Your task to perform on an android device: Open internet settings Image 0: 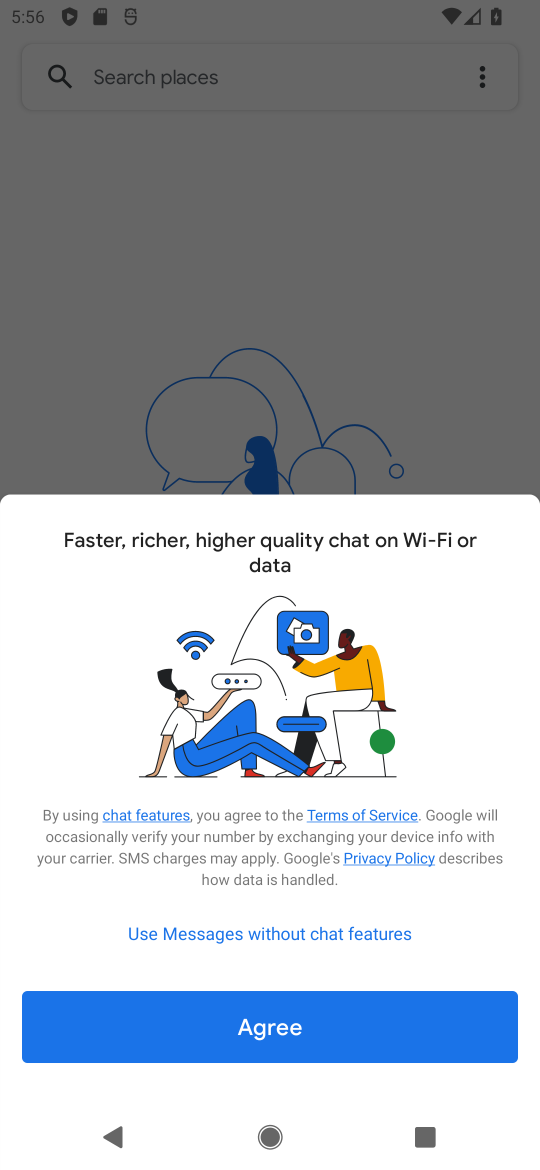
Step 0: press home button
Your task to perform on an android device: Open internet settings Image 1: 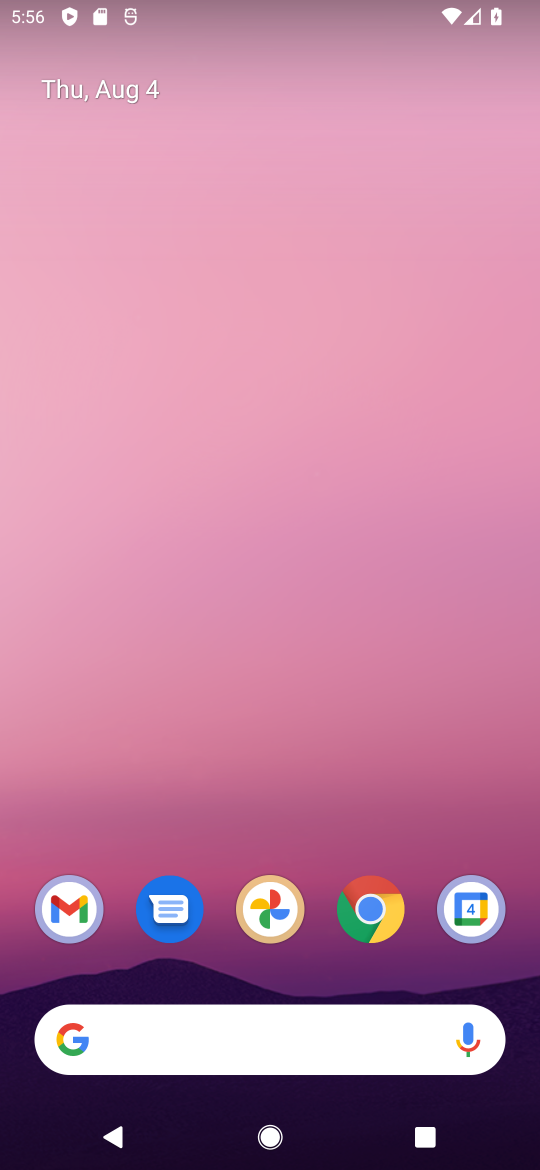
Step 1: drag from (325, 1012) to (451, 108)
Your task to perform on an android device: Open internet settings Image 2: 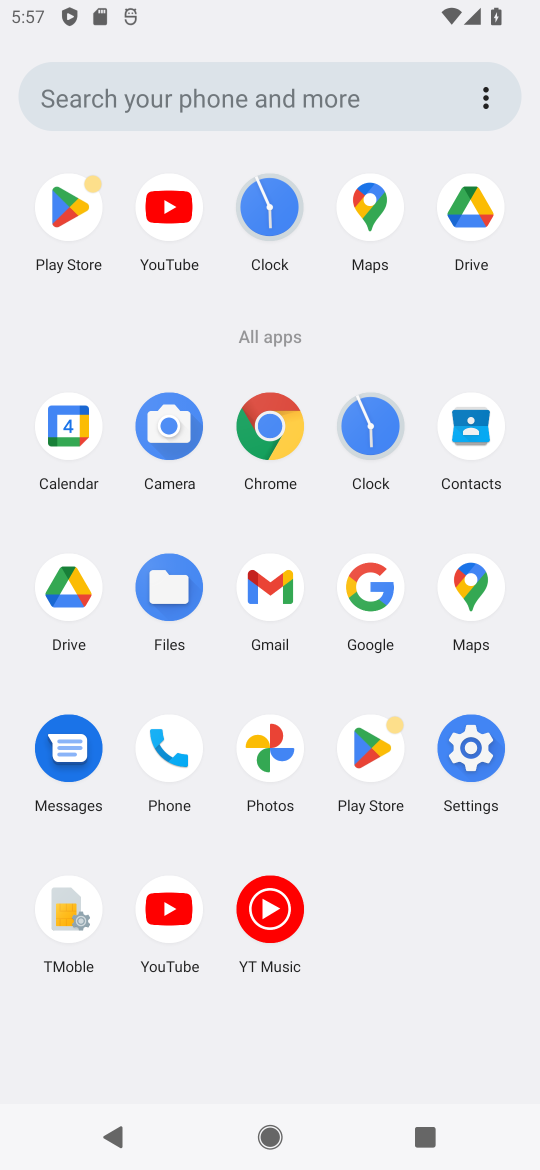
Step 2: click (480, 735)
Your task to perform on an android device: Open internet settings Image 3: 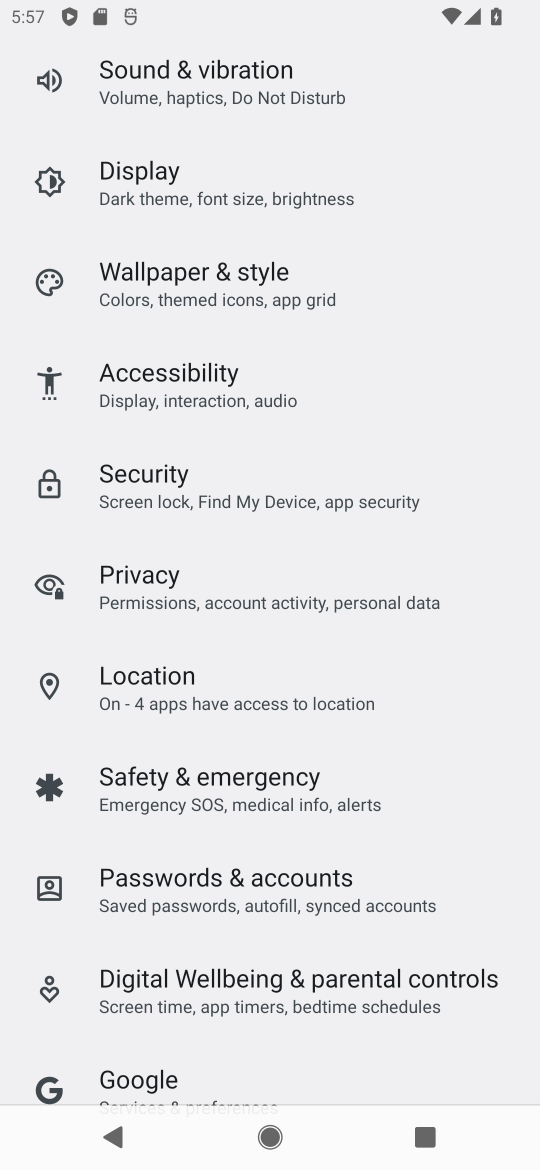
Step 3: drag from (291, 255) to (334, 1014)
Your task to perform on an android device: Open internet settings Image 4: 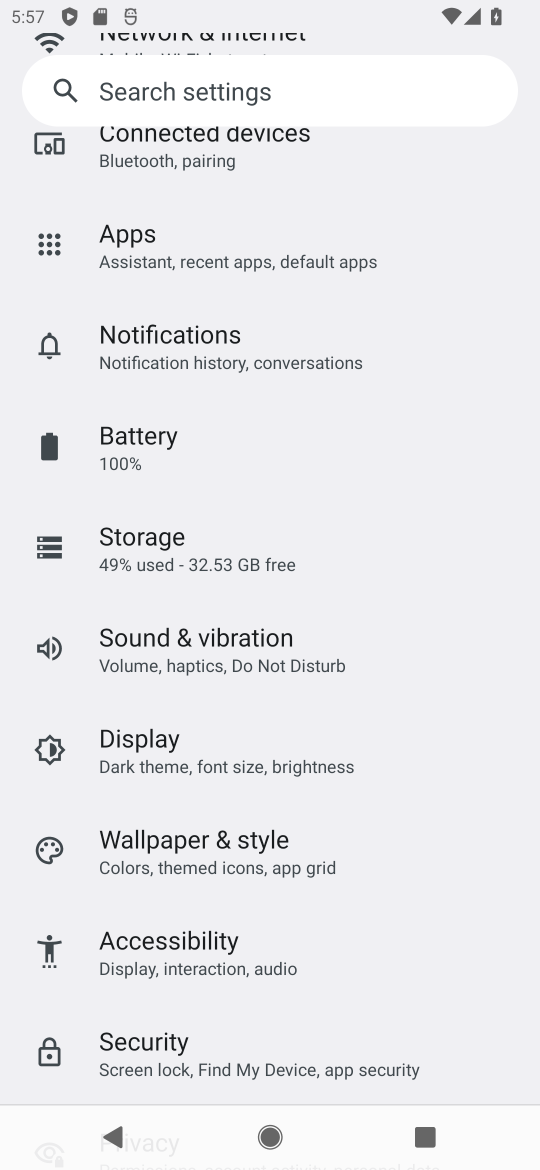
Step 4: drag from (275, 338) to (307, 1079)
Your task to perform on an android device: Open internet settings Image 5: 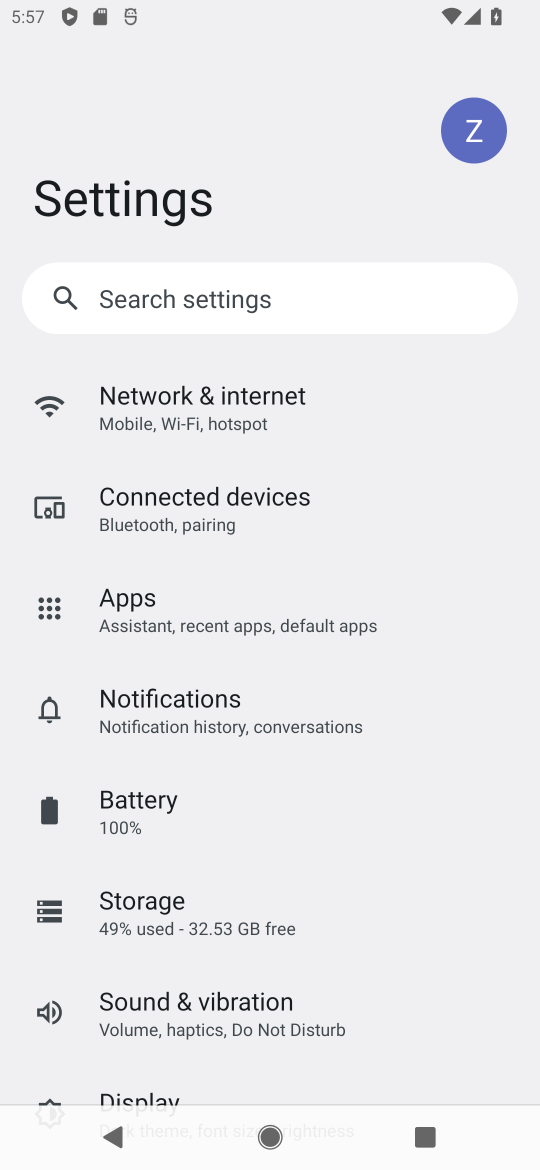
Step 5: click (163, 389)
Your task to perform on an android device: Open internet settings Image 6: 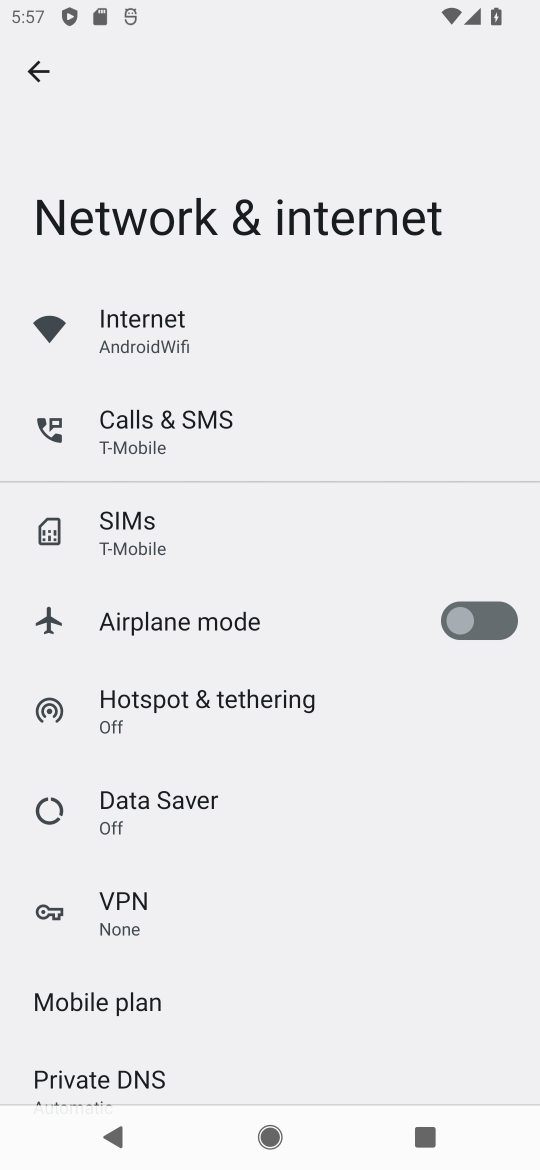
Step 6: task complete